Your task to perform on an android device: Open maps Image 0: 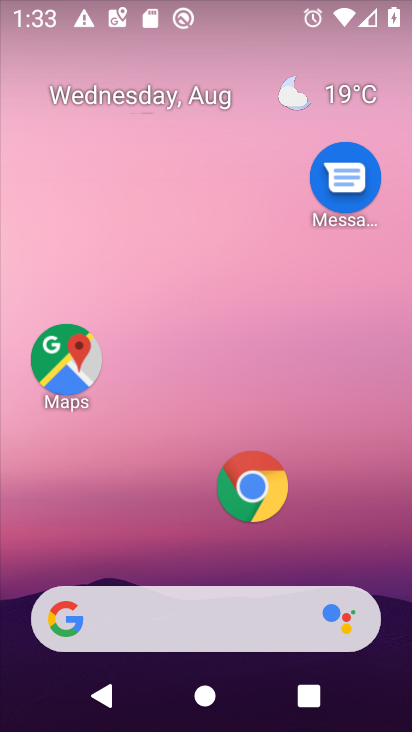
Step 0: click (49, 363)
Your task to perform on an android device: Open maps Image 1: 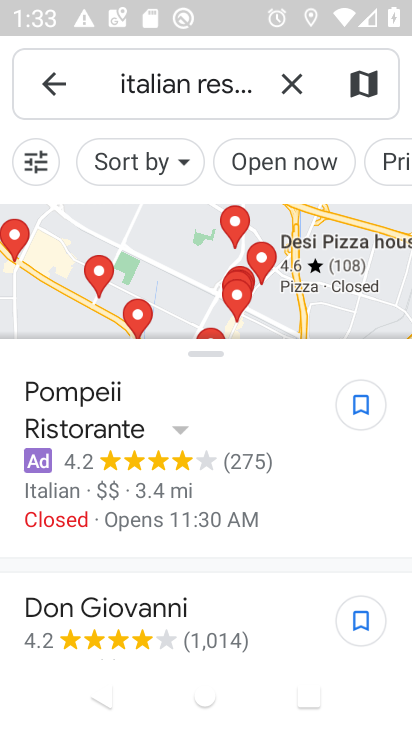
Step 1: task complete